Your task to perform on an android device: see tabs open on other devices in the chrome app Image 0: 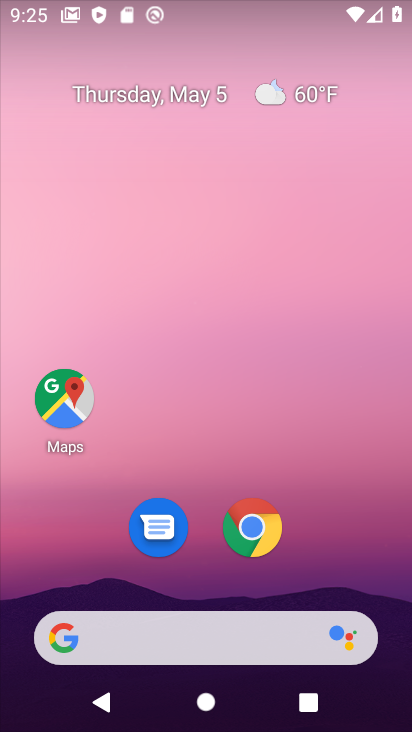
Step 0: drag from (218, 580) to (246, 1)
Your task to perform on an android device: see tabs open on other devices in the chrome app Image 1: 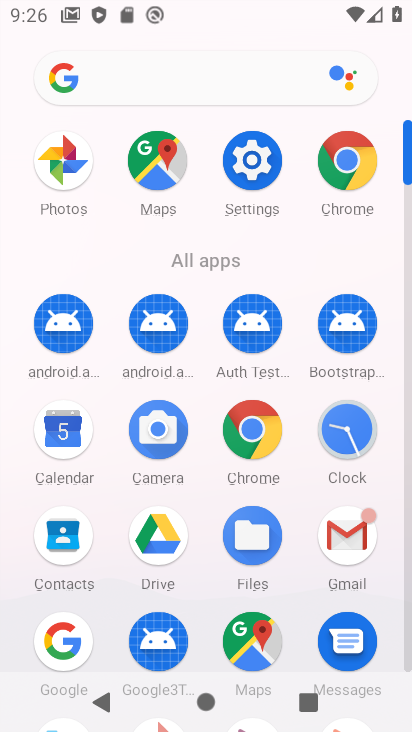
Step 1: click (248, 430)
Your task to perform on an android device: see tabs open on other devices in the chrome app Image 2: 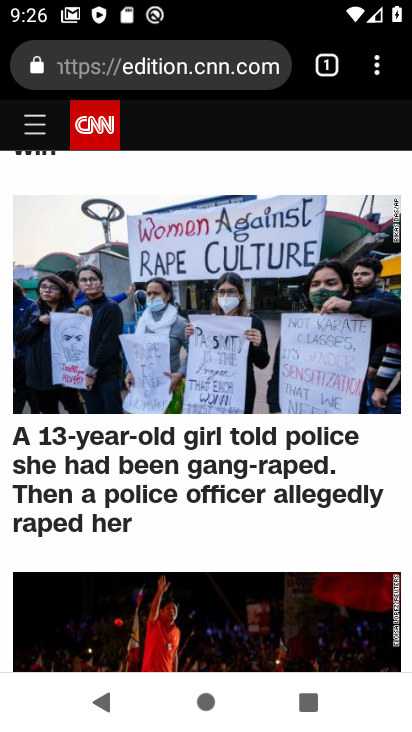
Step 2: click (372, 61)
Your task to perform on an android device: see tabs open on other devices in the chrome app Image 3: 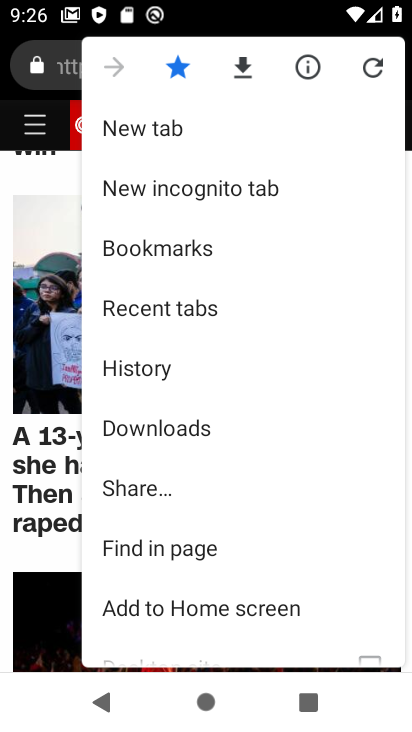
Step 3: click (224, 303)
Your task to perform on an android device: see tabs open on other devices in the chrome app Image 4: 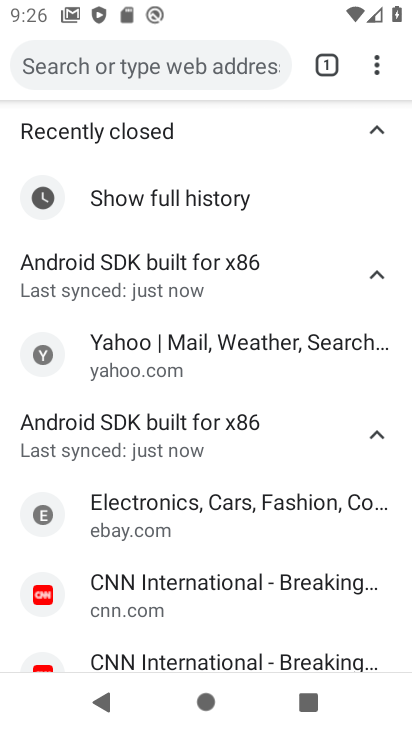
Step 4: task complete